Your task to perform on an android device: Open Reddit.com Image 0: 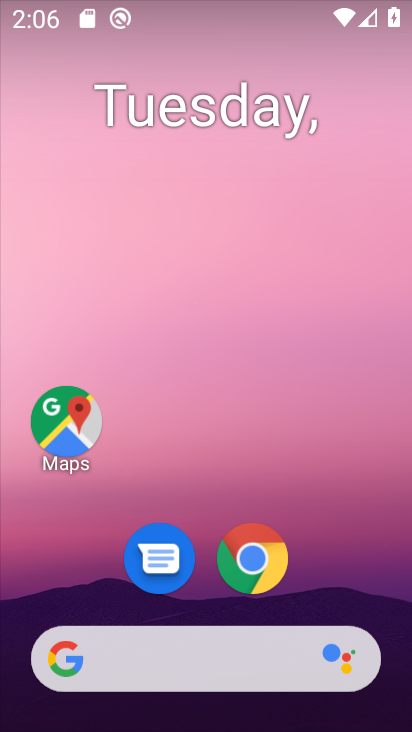
Step 0: click (142, 652)
Your task to perform on an android device: Open Reddit.com Image 1: 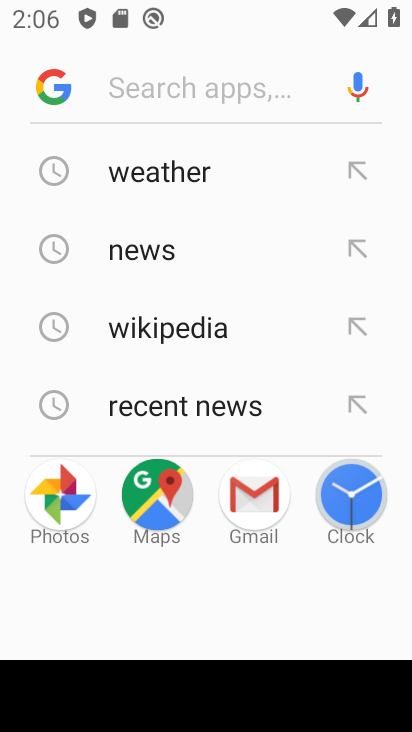
Step 1: type "Reddit.com"
Your task to perform on an android device: Open Reddit.com Image 2: 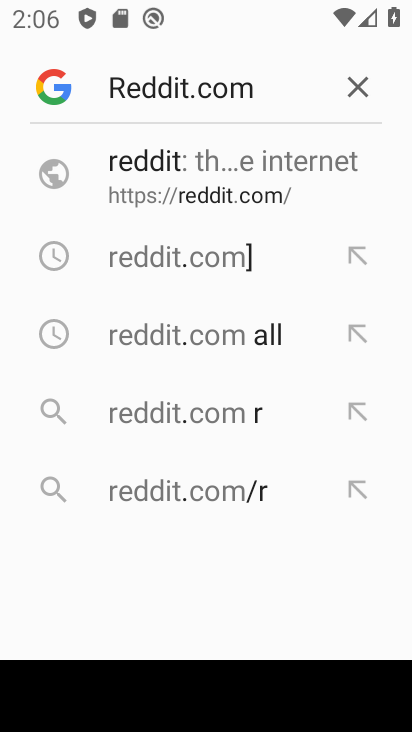
Step 2: click (220, 186)
Your task to perform on an android device: Open Reddit.com Image 3: 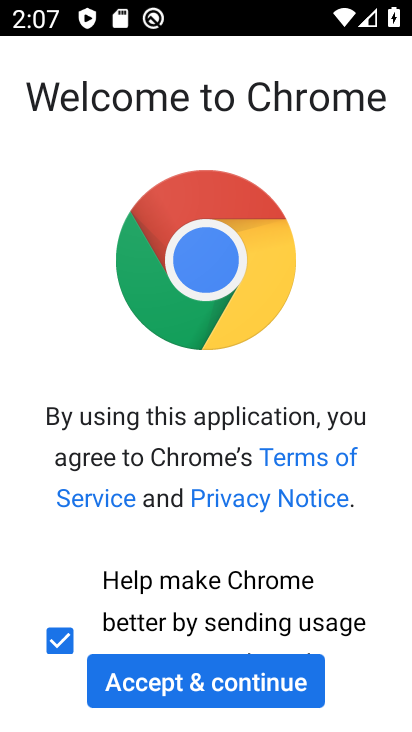
Step 3: click (238, 707)
Your task to perform on an android device: Open Reddit.com Image 4: 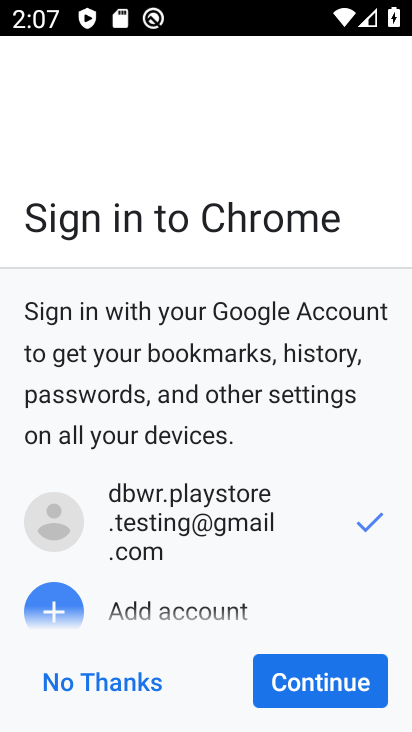
Step 4: click (303, 691)
Your task to perform on an android device: Open Reddit.com Image 5: 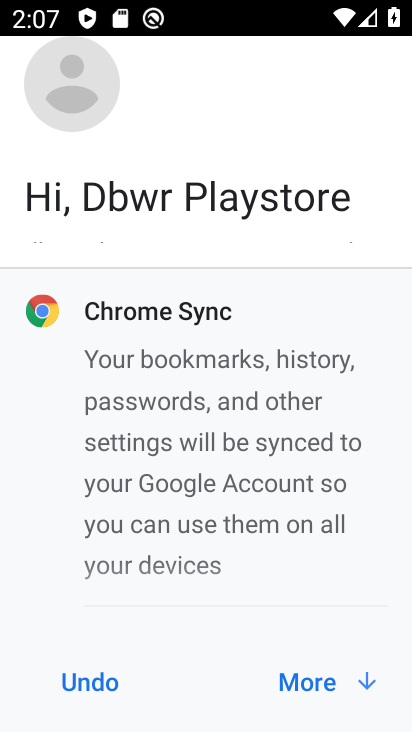
Step 5: click (303, 691)
Your task to perform on an android device: Open Reddit.com Image 6: 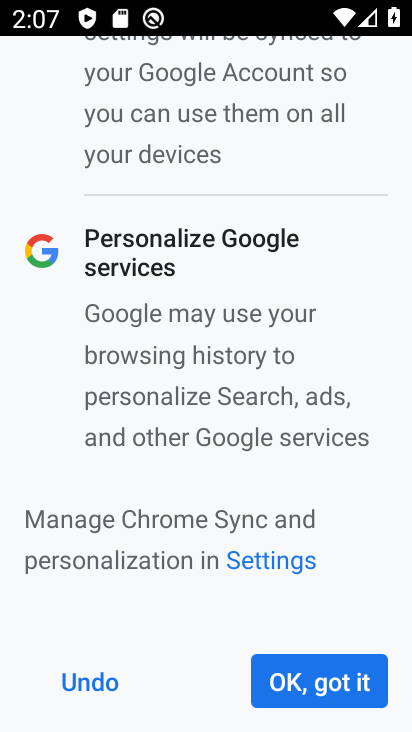
Step 6: click (318, 691)
Your task to perform on an android device: Open Reddit.com Image 7: 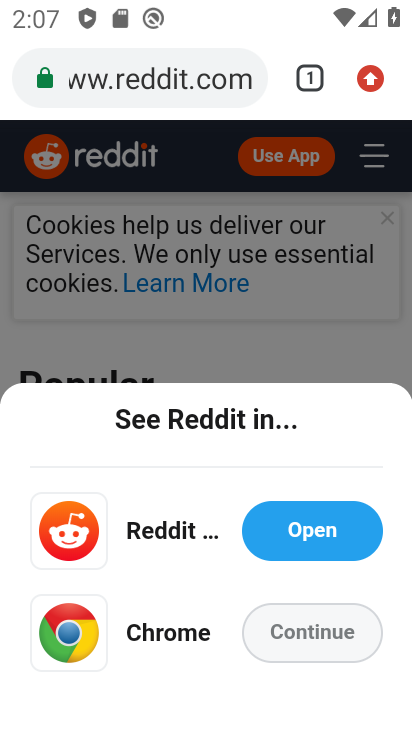
Step 7: click (336, 634)
Your task to perform on an android device: Open Reddit.com Image 8: 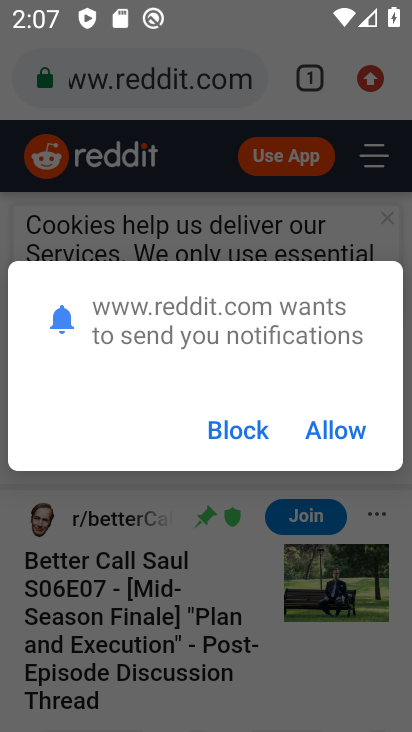
Step 8: click (355, 441)
Your task to perform on an android device: Open Reddit.com Image 9: 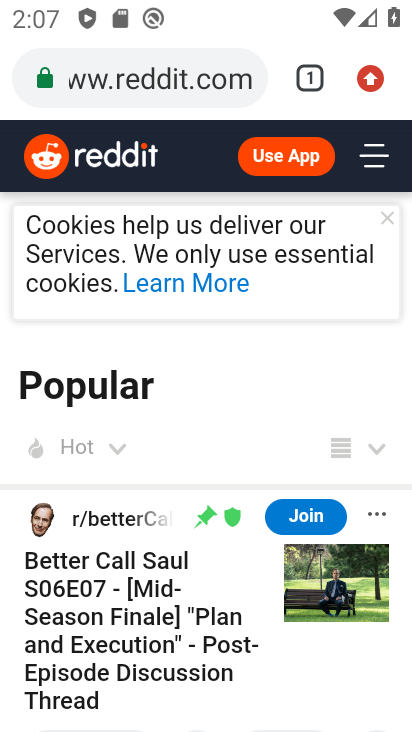
Step 9: task complete